Your task to perform on an android device: Open ESPN.com Image 0: 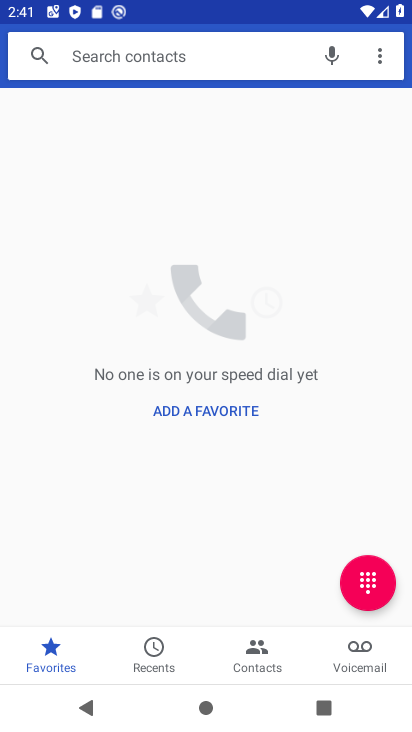
Step 0: press home button
Your task to perform on an android device: Open ESPN.com Image 1: 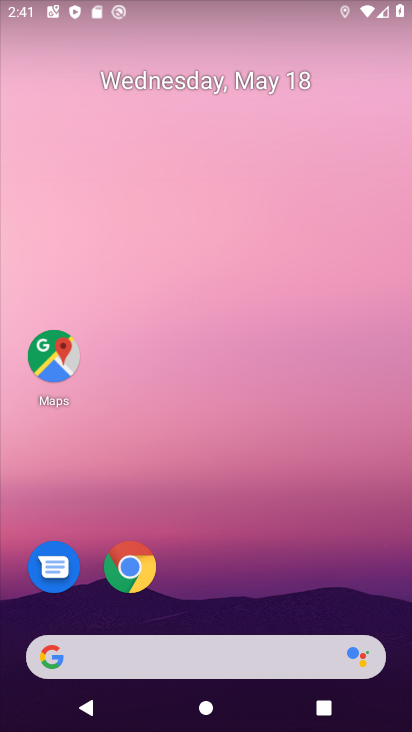
Step 1: click (134, 568)
Your task to perform on an android device: Open ESPN.com Image 2: 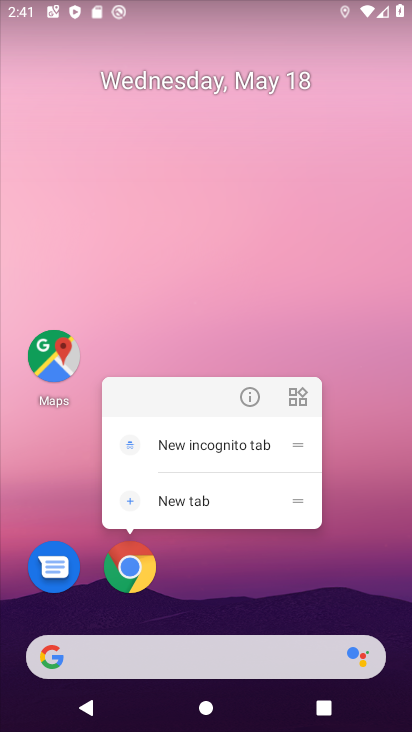
Step 2: click (127, 577)
Your task to perform on an android device: Open ESPN.com Image 3: 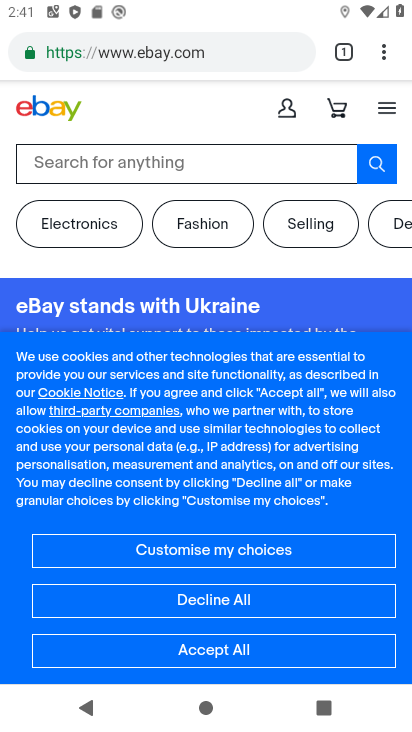
Step 3: press back button
Your task to perform on an android device: Open ESPN.com Image 4: 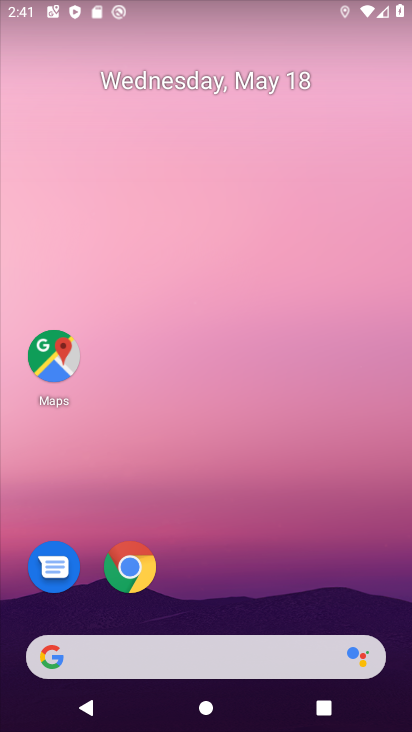
Step 4: click (129, 573)
Your task to perform on an android device: Open ESPN.com Image 5: 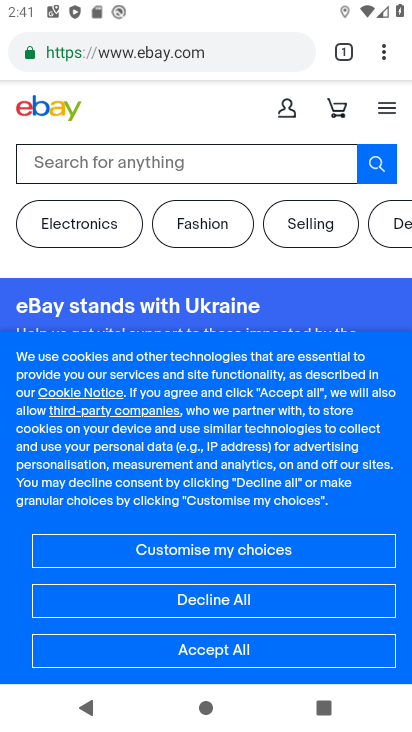
Step 5: click (123, 50)
Your task to perform on an android device: Open ESPN.com Image 6: 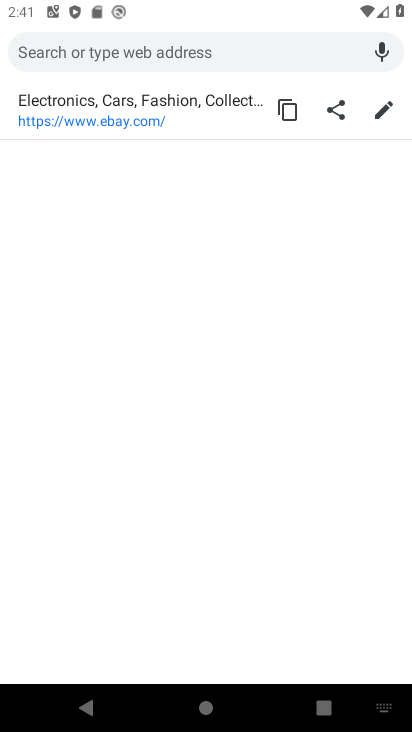
Step 6: type "www.espn.com"
Your task to perform on an android device: Open ESPN.com Image 7: 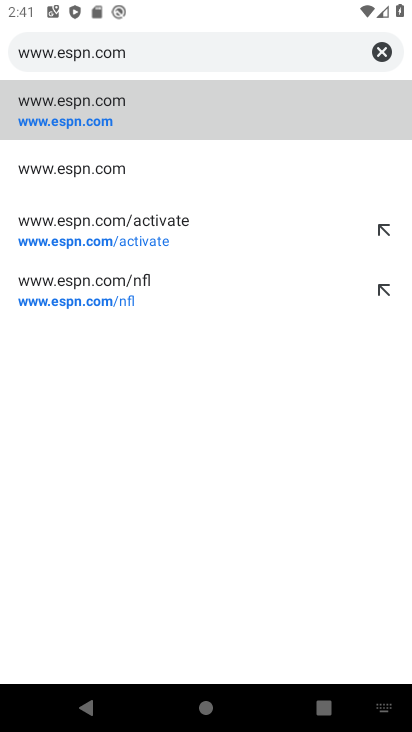
Step 7: click (66, 114)
Your task to perform on an android device: Open ESPN.com Image 8: 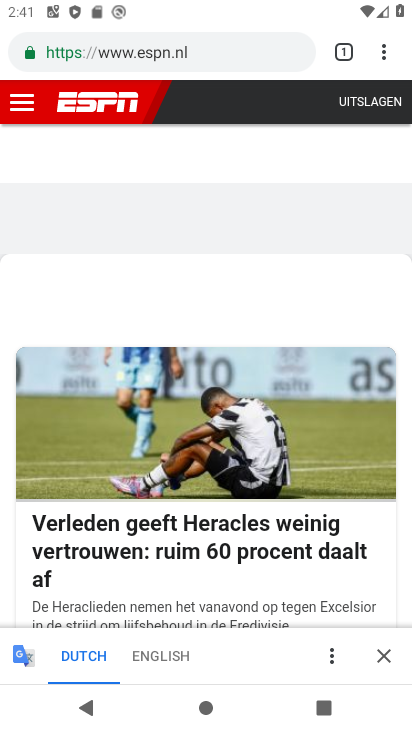
Step 8: task complete